Your task to perform on an android device: toggle wifi Image 0: 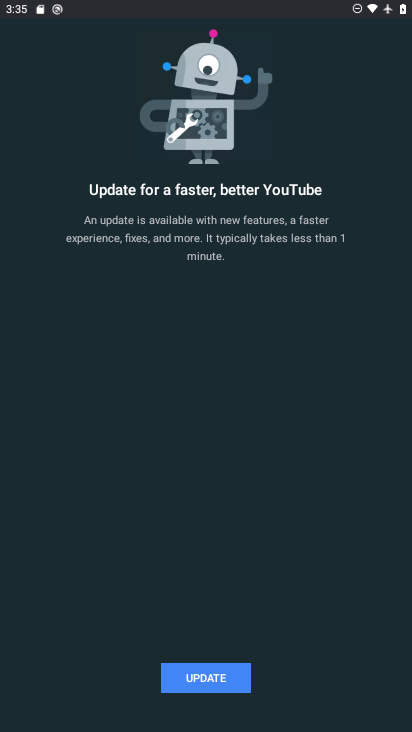
Step 0: press home button
Your task to perform on an android device: toggle wifi Image 1: 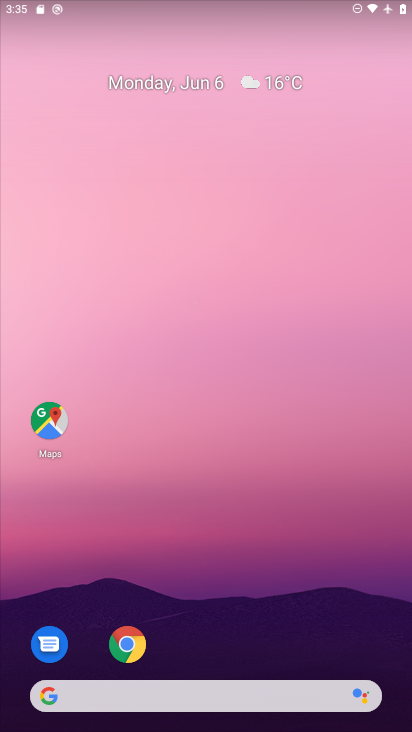
Step 1: drag from (261, 593) to (248, 89)
Your task to perform on an android device: toggle wifi Image 2: 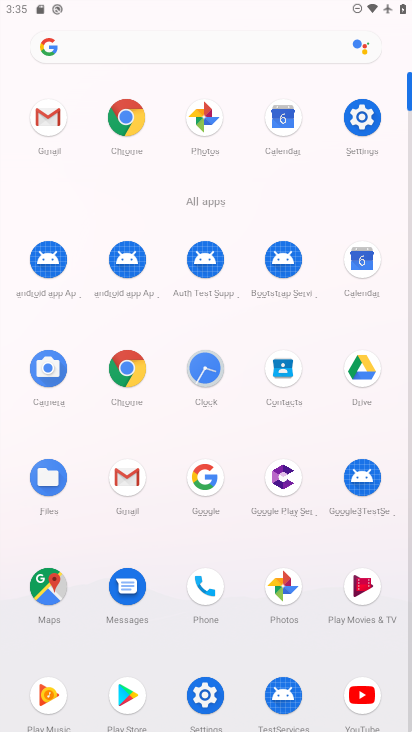
Step 2: click (360, 112)
Your task to perform on an android device: toggle wifi Image 3: 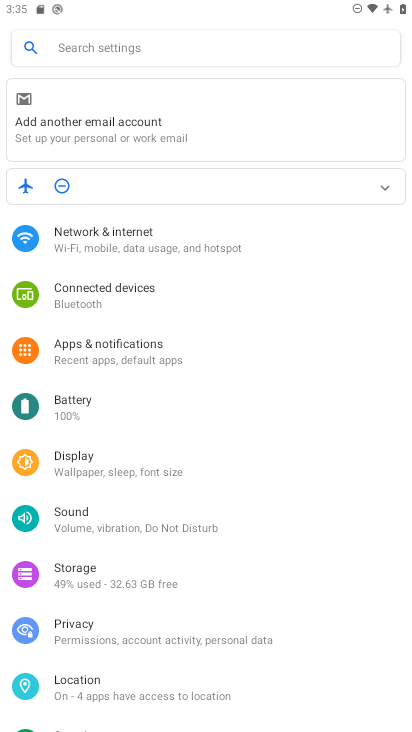
Step 3: click (133, 240)
Your task to perform on an android device: toggle wifi Image 4: 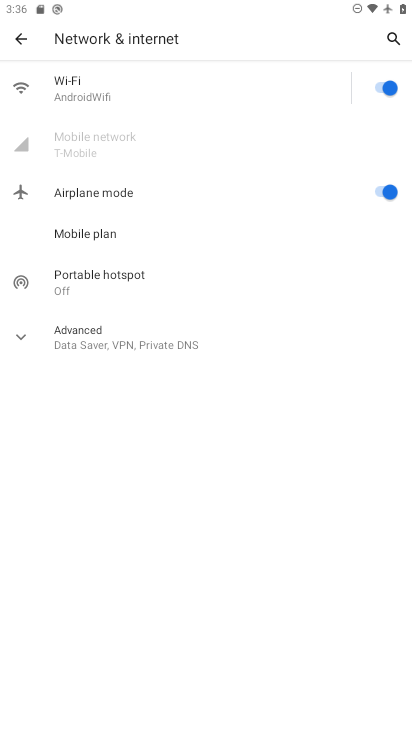
Step 4: click (387, 82)
Your task to perform on an android device: toggle wifi Image 5: 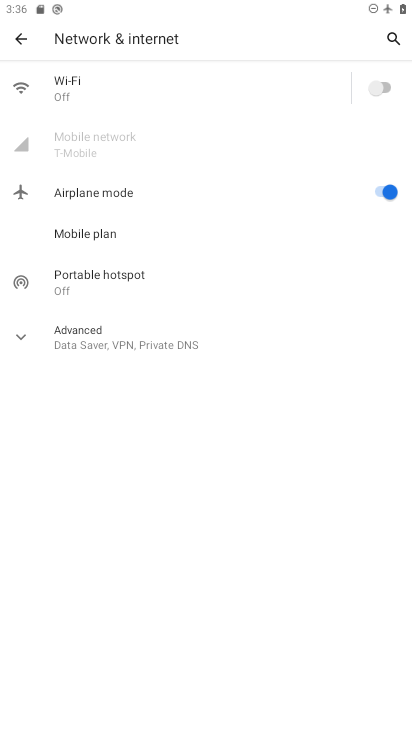
Step 5: task complete